Your task to perform on an android device: Clear all items from cart on costco. Add "razer huntsman" to the cart on costco, then select checkout. Image 0: 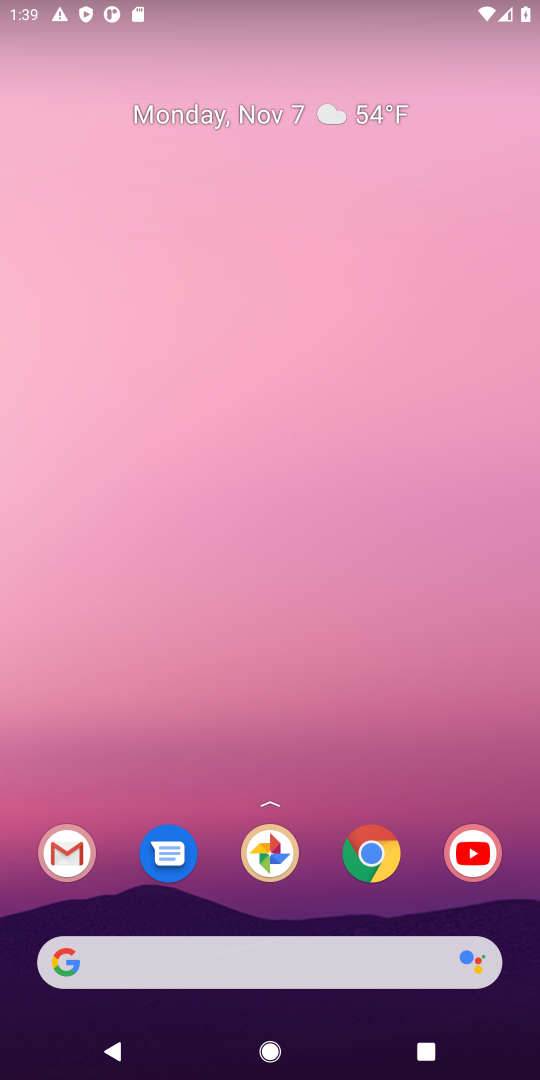
Step 0: drag from (250, 695) to (95, 217)
Your task to perform on an android device: Clear all items from cart on costco. Add "razer huntsman" to the cart on costco, then select checkout. Image 1: 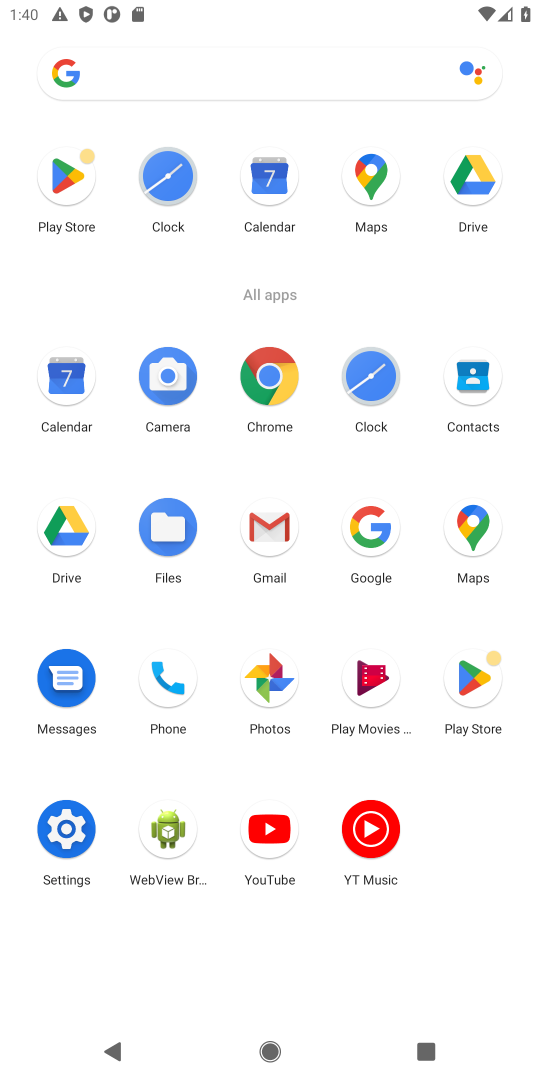
Step 1: click (269, 357)
Your task to perform on an android device: Clear all items from cart on costco. Add "razer huntsman" to the cart on costco, then select checkout. Image 2: 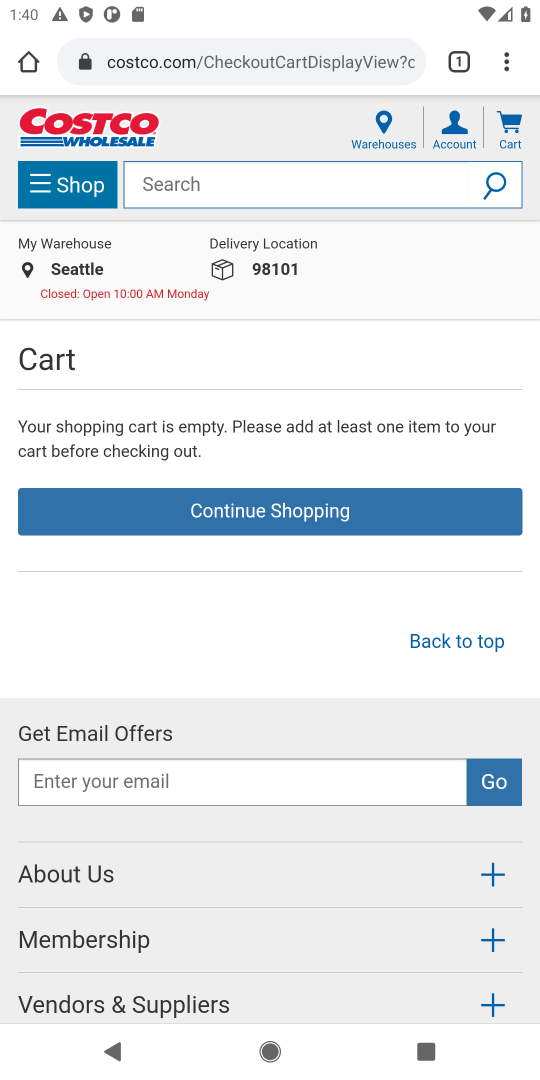
Step 2: click (163, 173)
Your task to perform on an android device: Clear all items from cart on costco. Add "razer huntsman" to the cart on costco, then select checkout. Image 3: 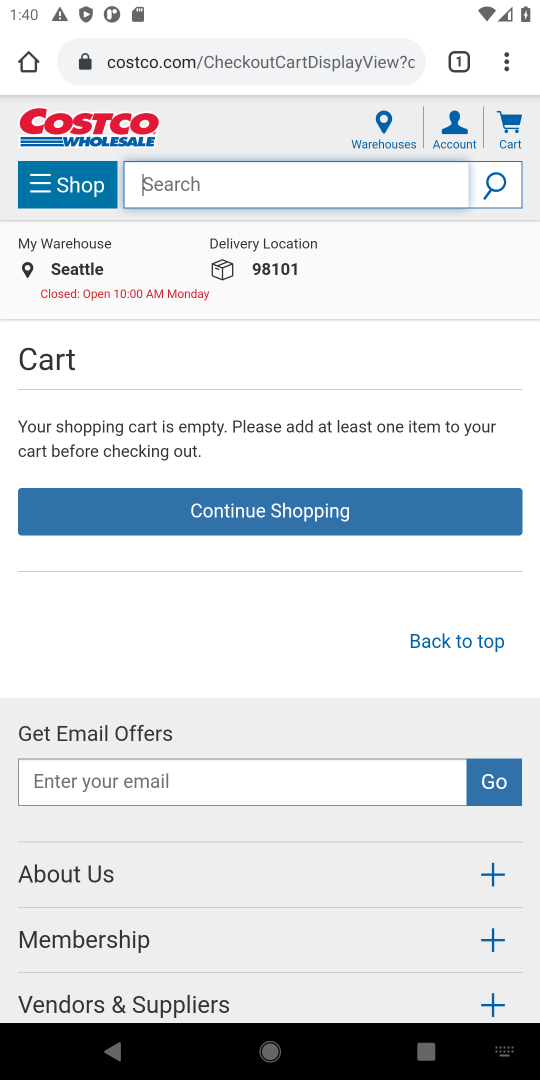
Step 3: type "razer huntsman"
Your task to perform on an android device: Clear all items from cart on costco. Add "razer huntsman" to the cart on costco, then select checkout. Image 4: 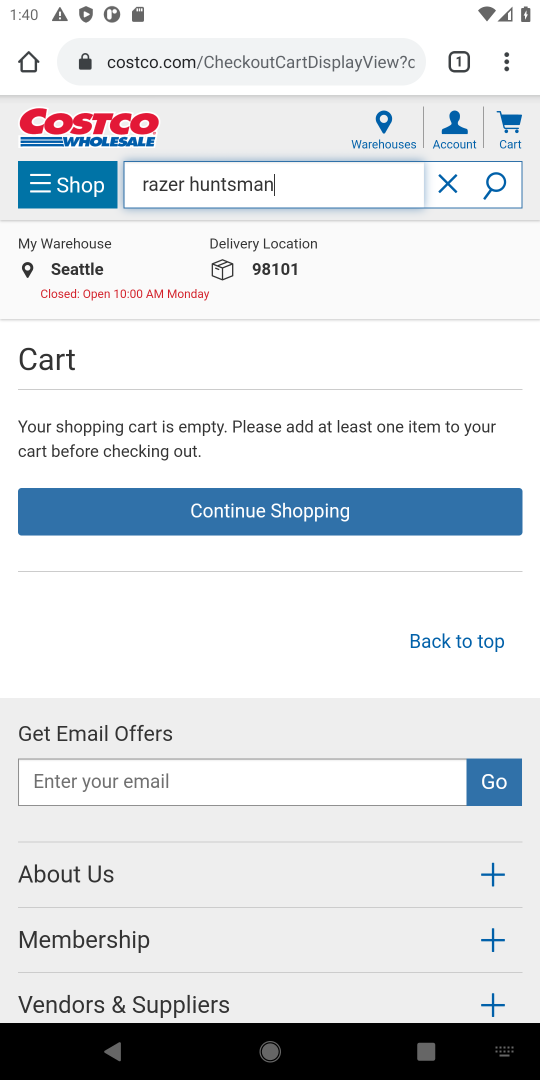
Step 4: press enter
Your task to perform on an android device: Clear all items from cart on costco. Add "razer huntsman" to the cart on costco, then select checkout. Image 5: 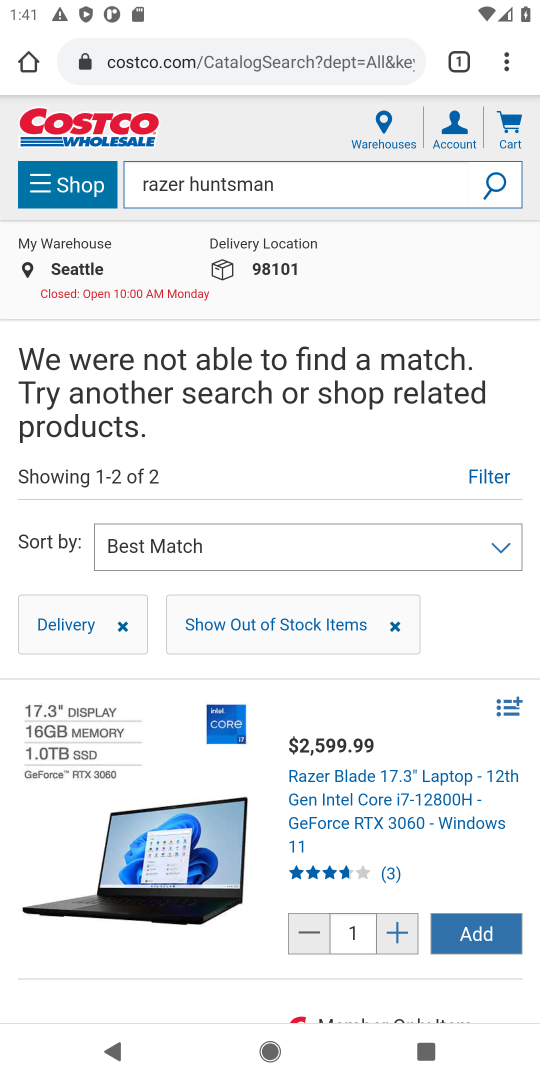
Step 5: drag from (352, 764) to (235, 579)
Your task to perform on an android device: Clear all items from cart on costco. Add "razer huntsman" to the cart on costco, then select checkout. Image 6: 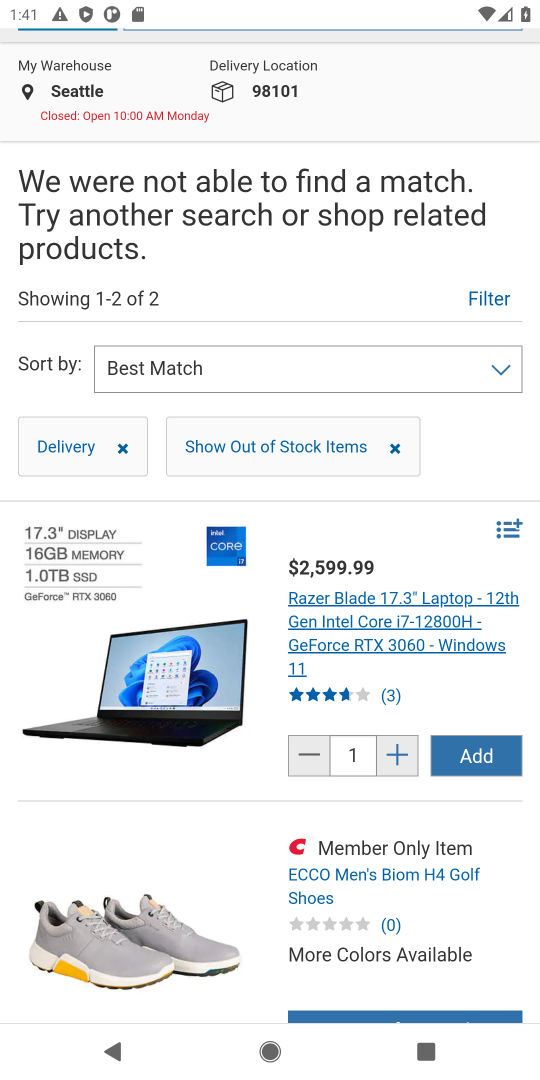
Step 6: click (470, 747)
Your task to perform on an android device: Clear all items from cart on costco. Add "razer huntsman" to the cart on costco, then select checkout. Image 7: 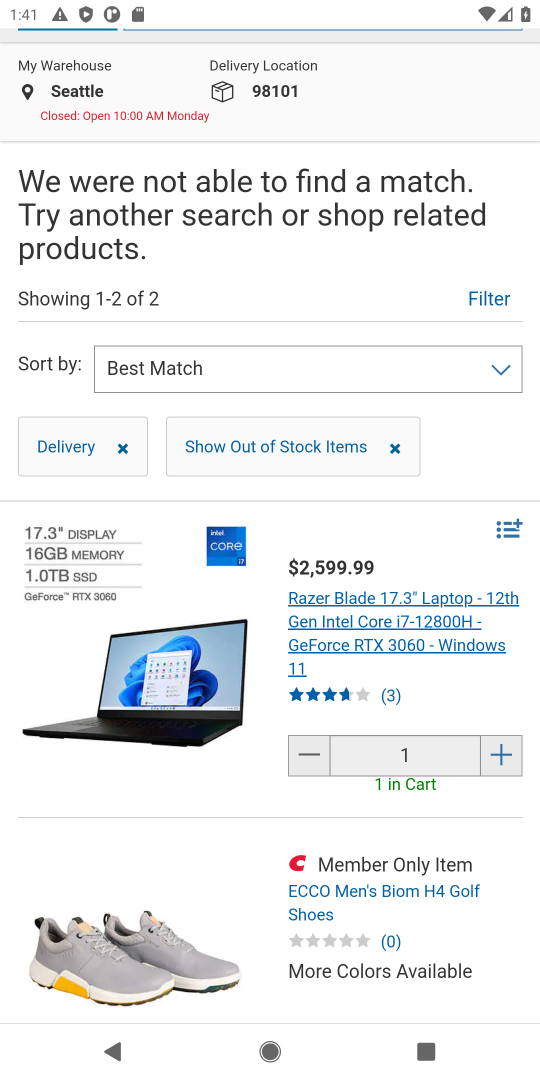
Step 7: drag from (284, 482) to (386, 699)
Your task to perform on an android device: Clear all items from cart on costco. Add "razer huntsman" to the cart on costco, then select checkout. Image 8: 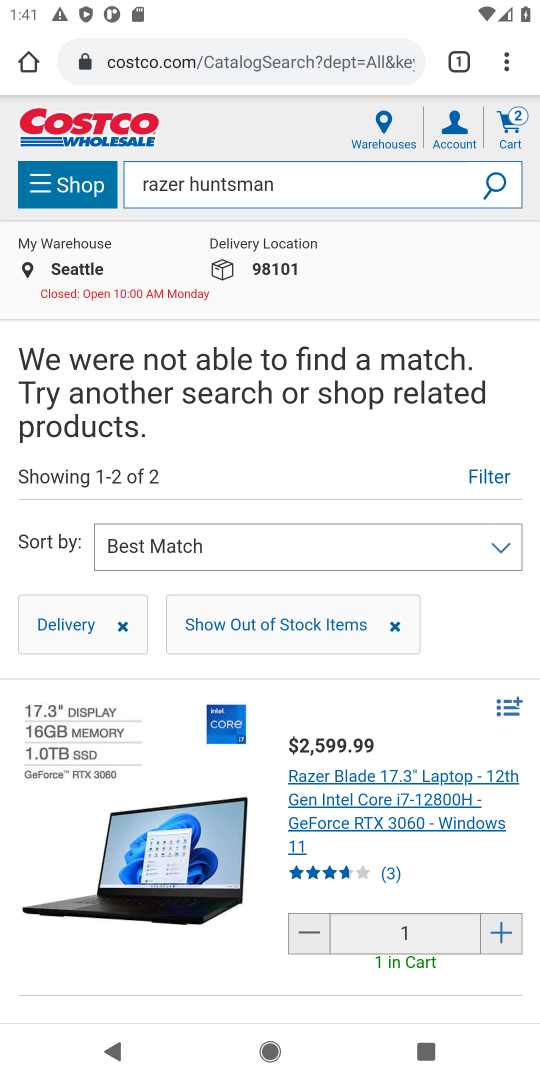
Step 8: click (518, 121)
Your task to perform on an android device: Clear all items from cart on costco. Add "razer huntsman" to the cart on costco, then select checkout. Image 9: 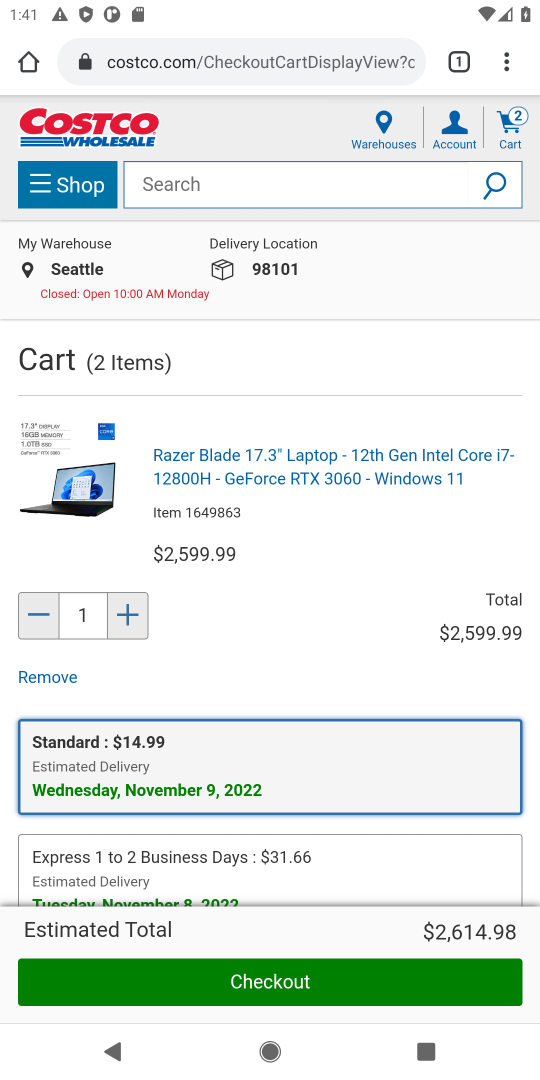
Step 9: click (275, 984)
Your task to perform on an android device: Clear all items from cart on costco. Add "razer huntsman" to the cart on costco, then select checkout. Image 10: 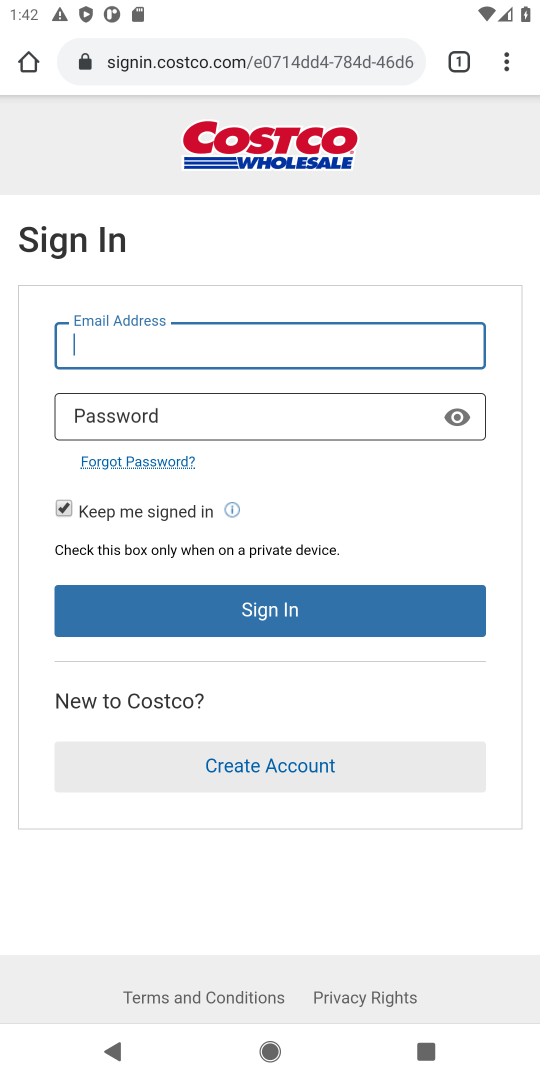
Step 10: task complete